Your task to perform on an android device: Open Google Image 0: 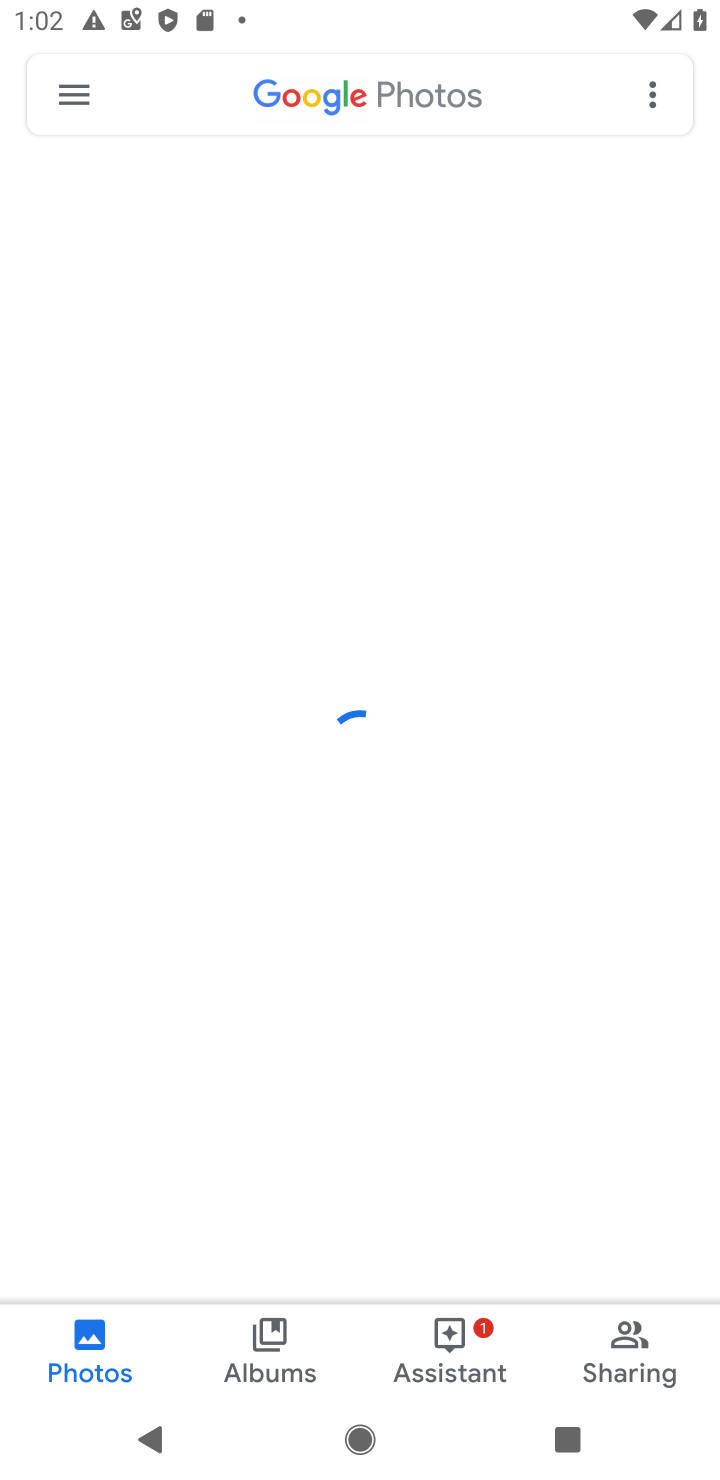
Step 0: press home button
Your task to perform on an android device: Open Google Image 1: 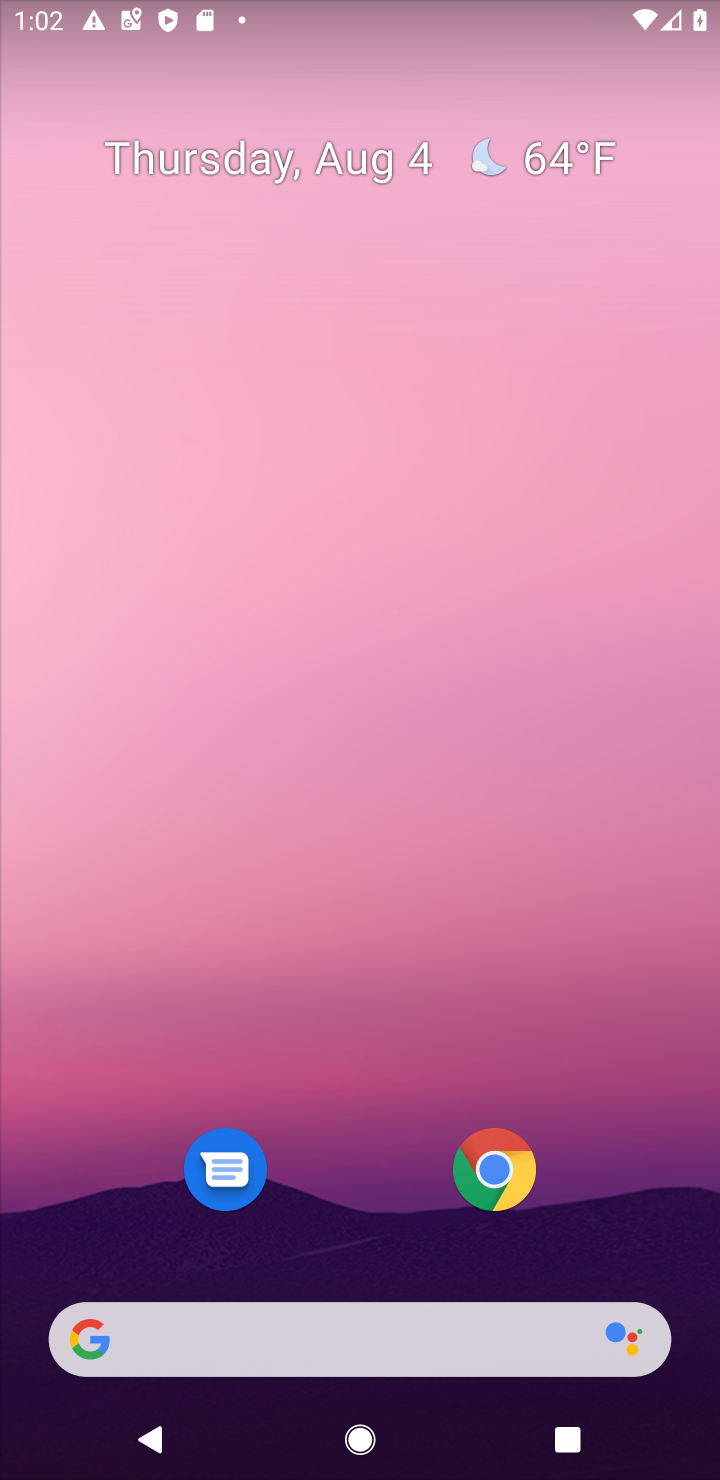
Step 1: click (73, 1332)
Your task to perform on an android device: Open Google Image 2: 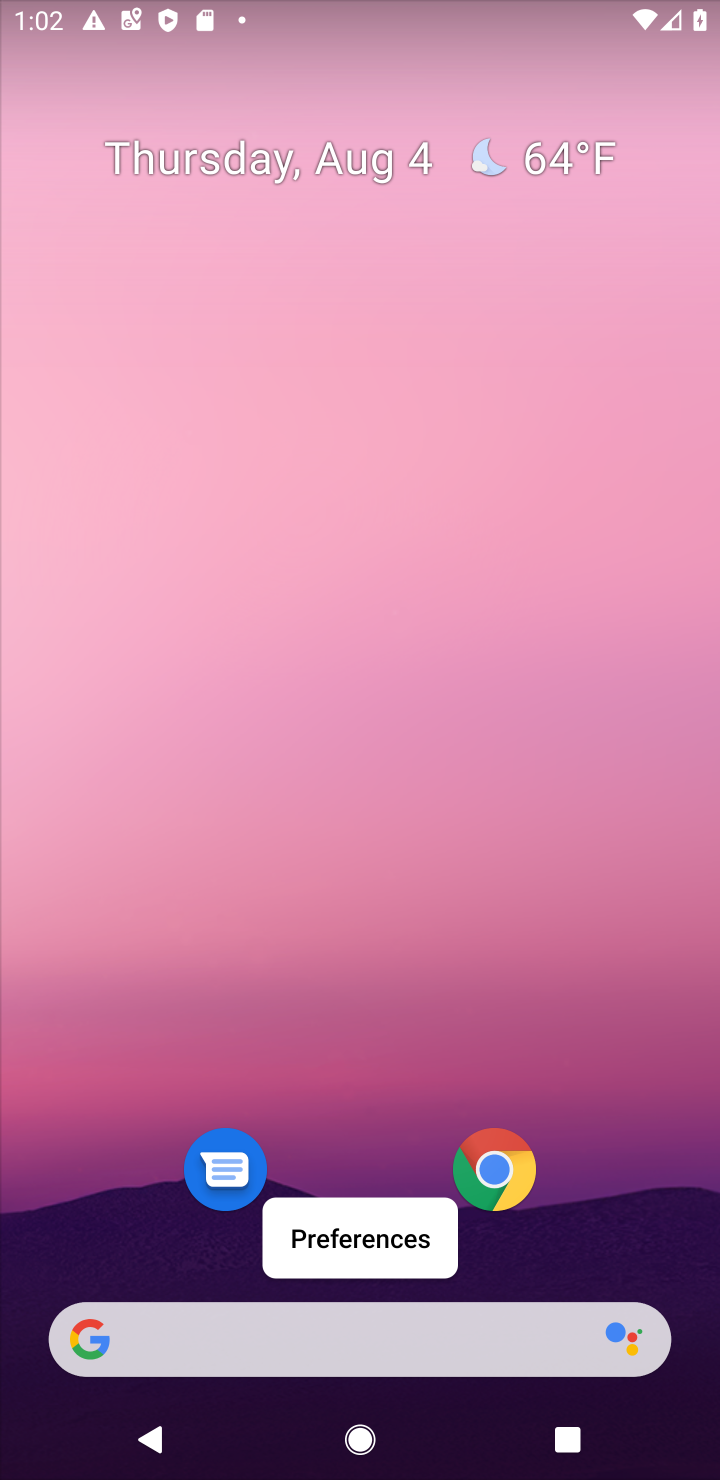
Step 2: click (85, 1350)
Your task to perform on an android device: Open Google Image 3: 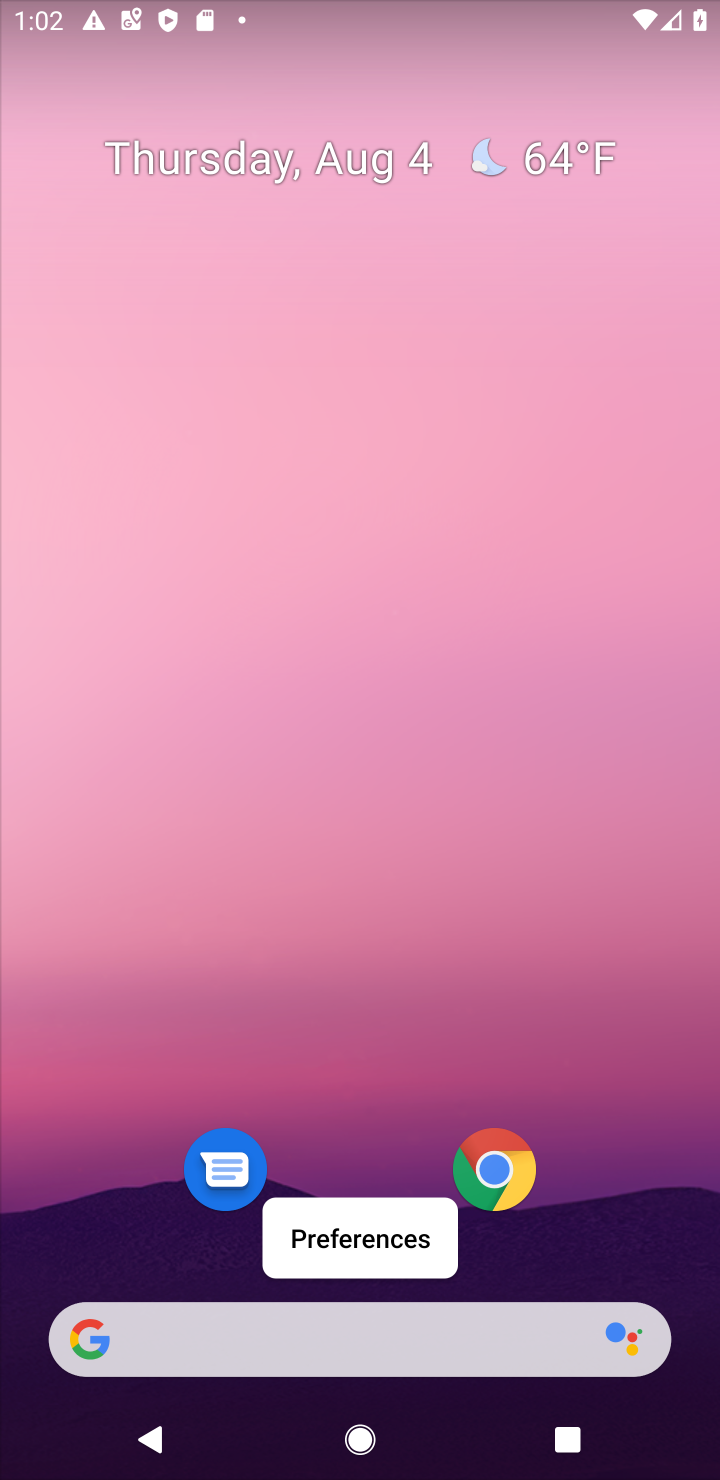
Step 3: click (85, 1350)
Your task to perform on an android device: Open Google Image 4: 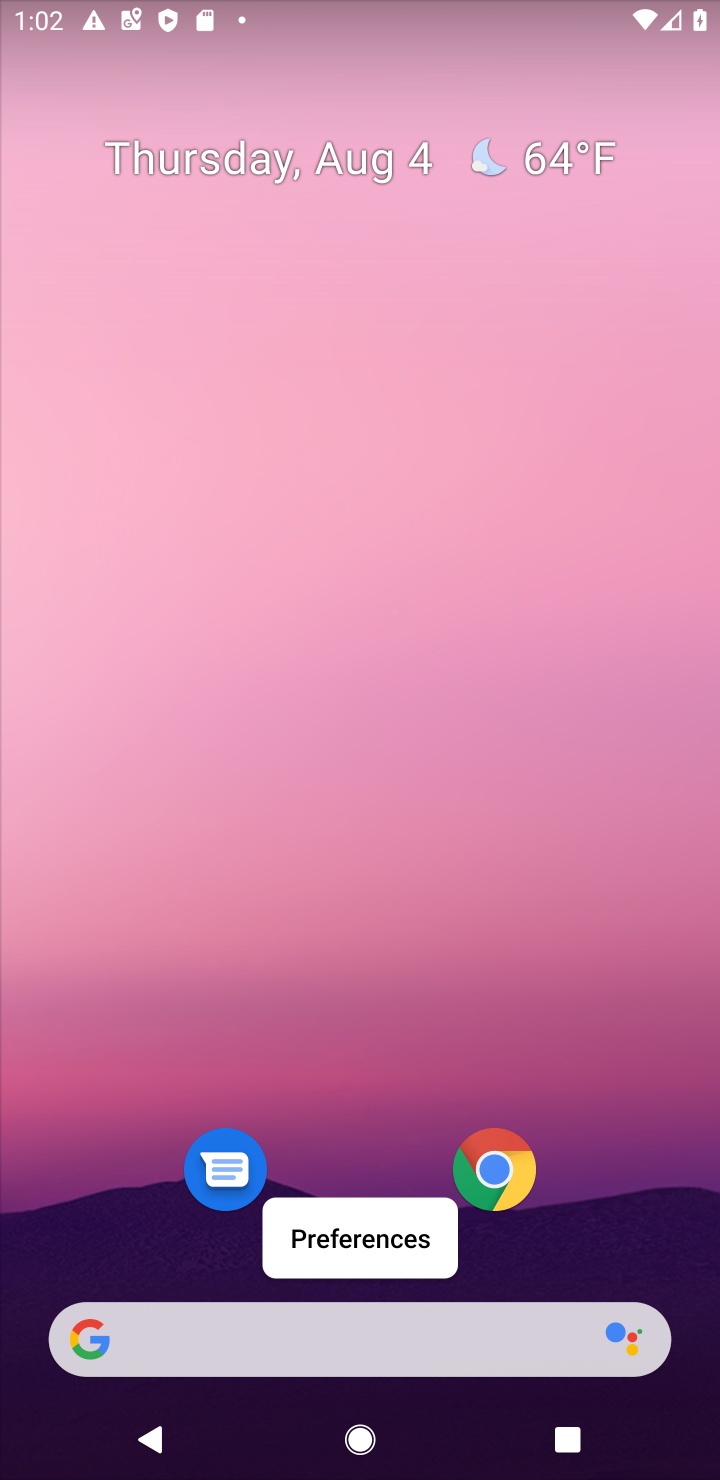
Step 4: click (102, 1322)
Your task to perform on an android device: Open Google Image 5: 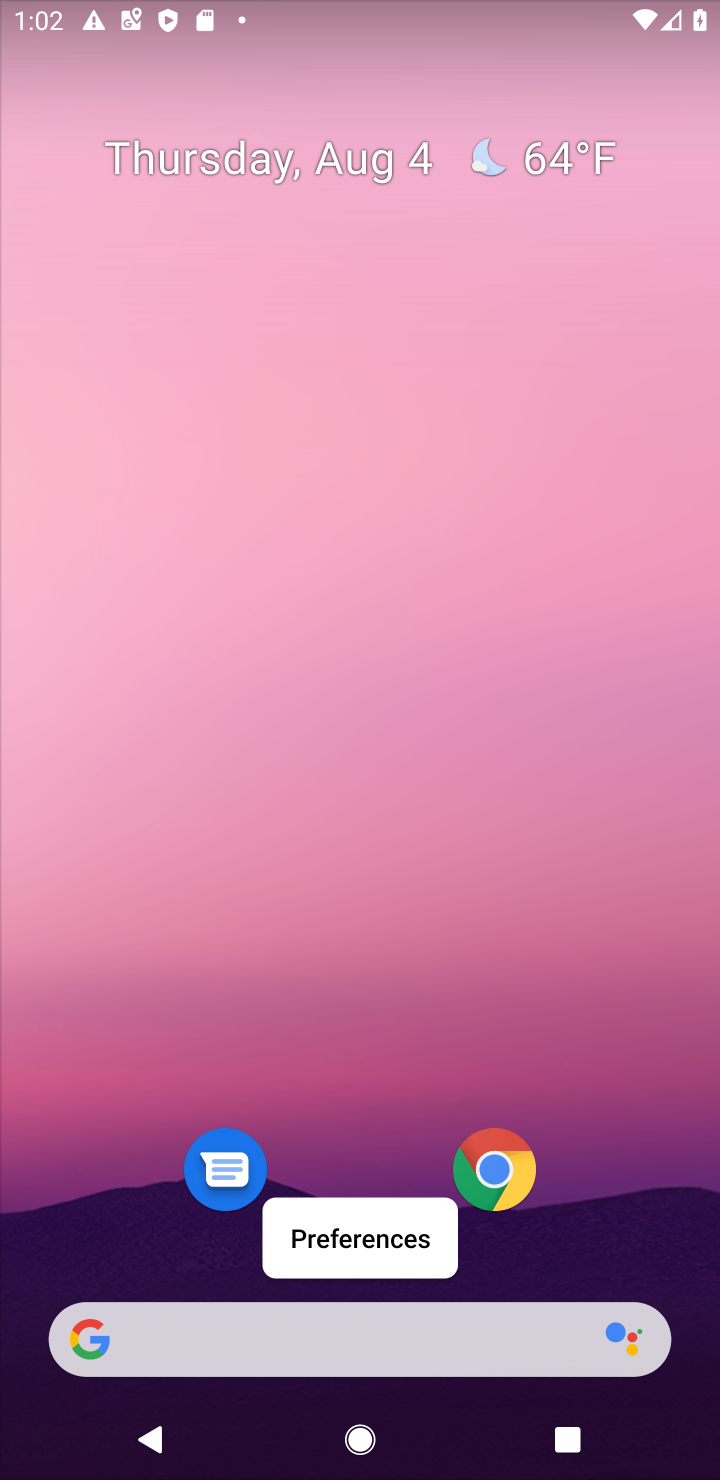
Step 5: click (73, 1336)
Your task to perform on an android device: Open Google Image 6: 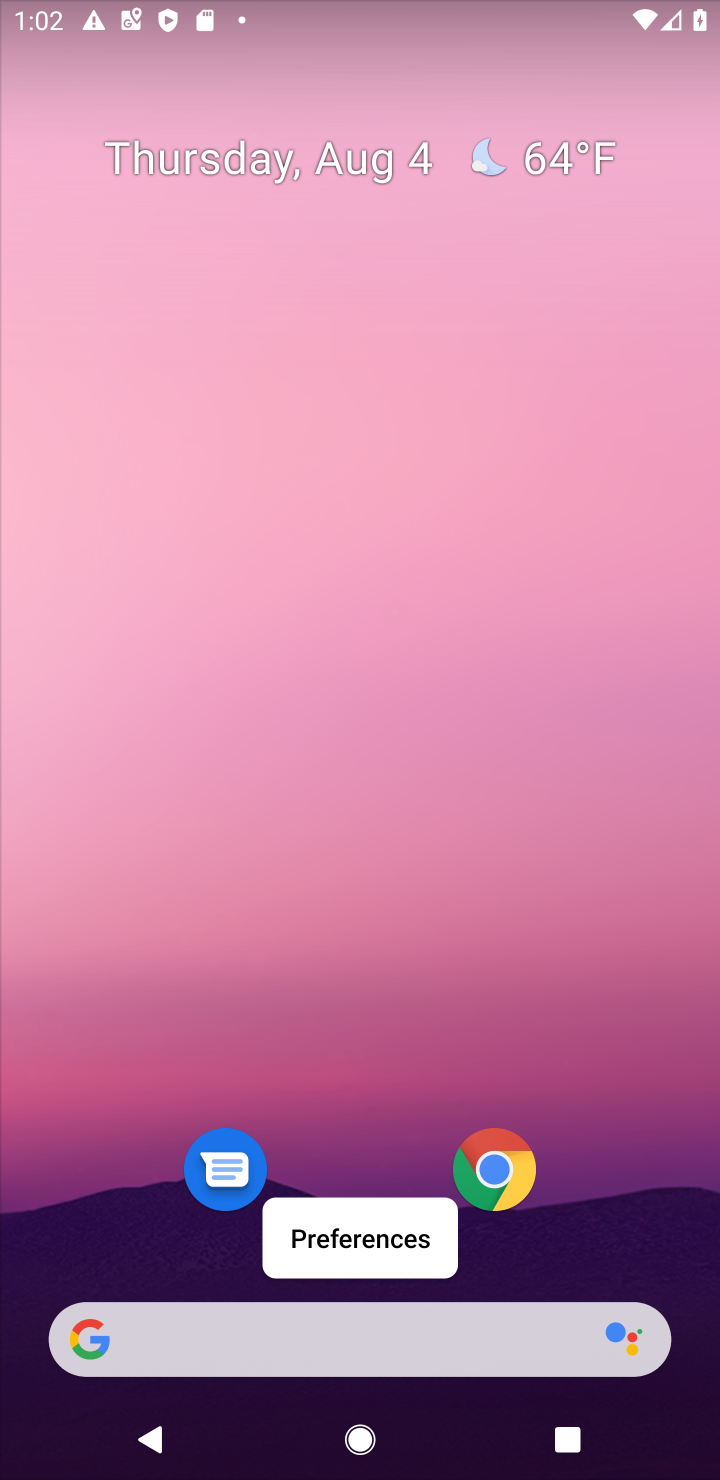
Step 6: click (73, 1336)
Your task to perform on an android device: Open Google Image 7: 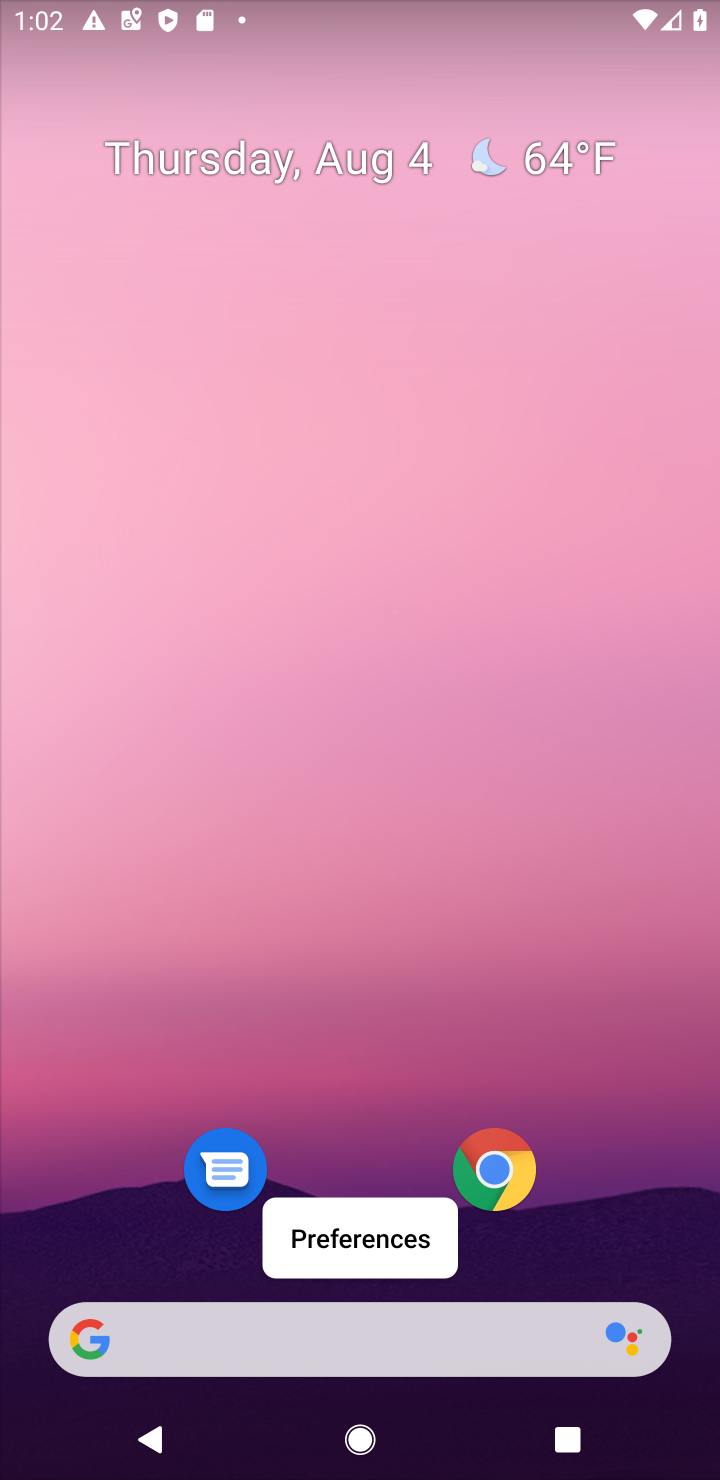
Step 7: click (73, 1336)
Your task to perform on an android device: Open Google Image 8: 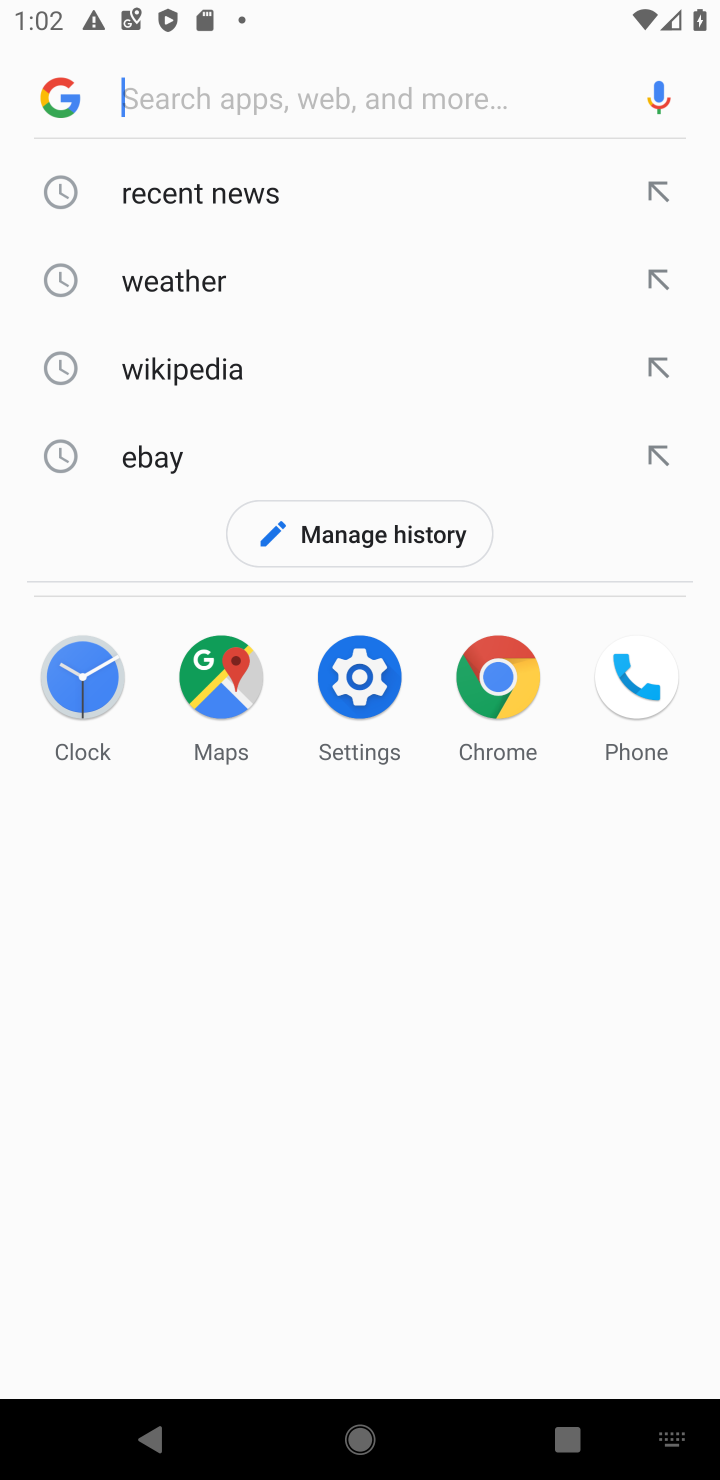
Step 8: click (56, 79)
Your task to perform on an android device: Open Google Image 9: 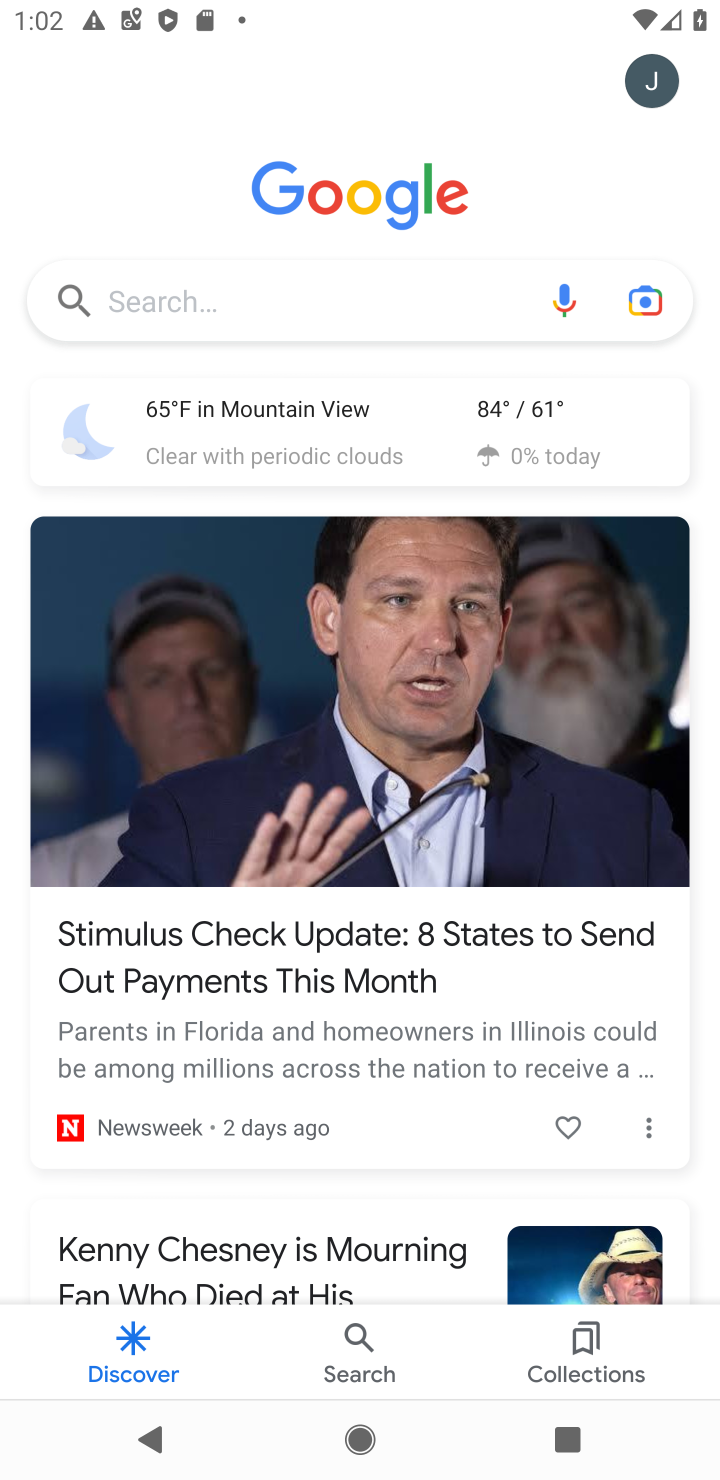
Step 9: task complete